Your task to perform on an android device: turn on priority inbox in the gmail app Image 0: 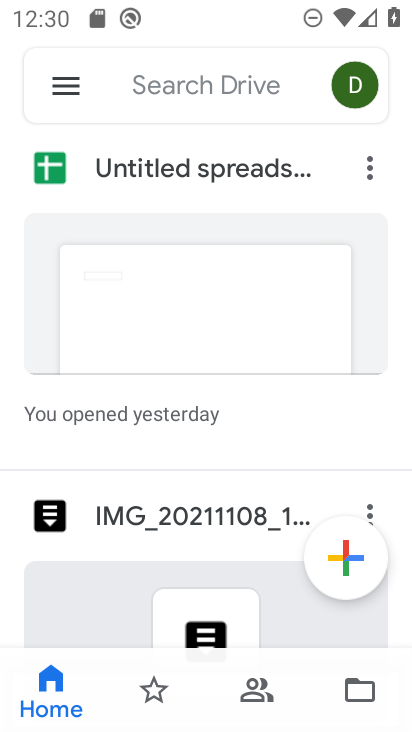
Step 0: press home button
Your task to perform on an android device: turn on priority inbox in the gmail app Image 1: 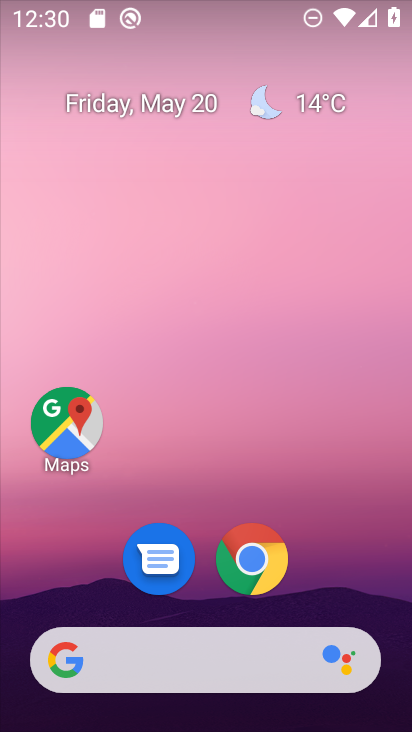
Step 1: drag from (349, 598) to (355, 15)
Your task to perform on an android device: turn on priority inbox in the gmail app Image 2: 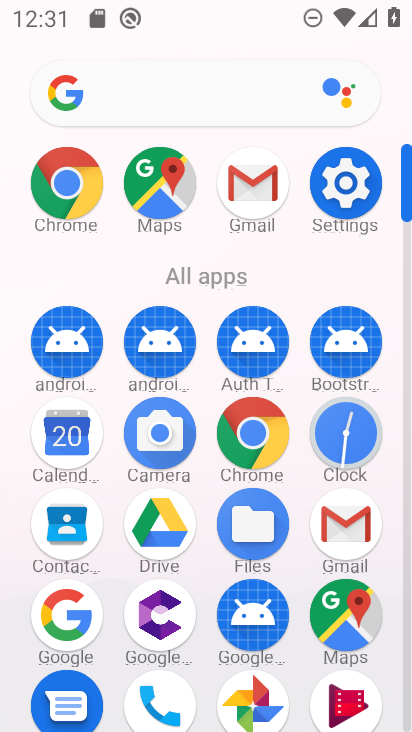
Step 2: click (358, 540)
Your task to perform on an android device: turn on priority inbox in the gmail app Image 3: 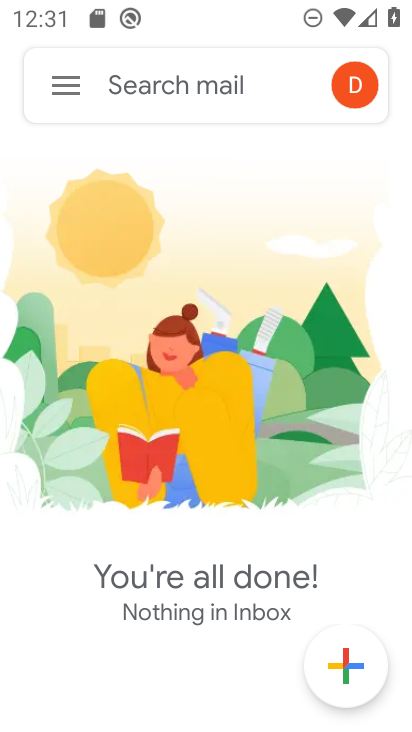
Step 3: click (62, 106)
Your task to perform on an android device: turn on priority inbox in the gmail app Image 4: 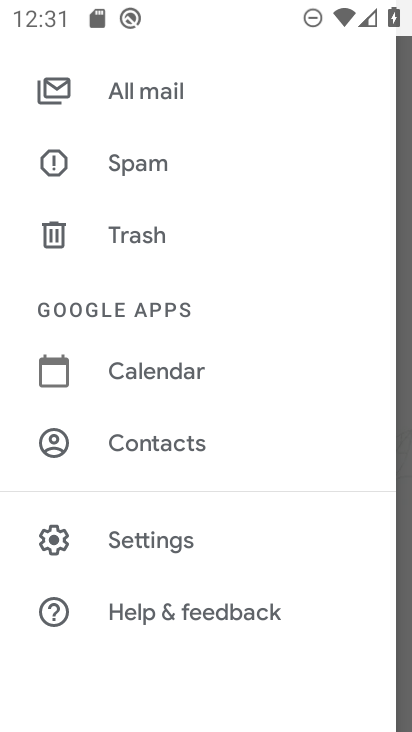
Step 4: click (178, 508)
Your task to perform on an android device: turn on priority inbox in the gmail app Image 5: 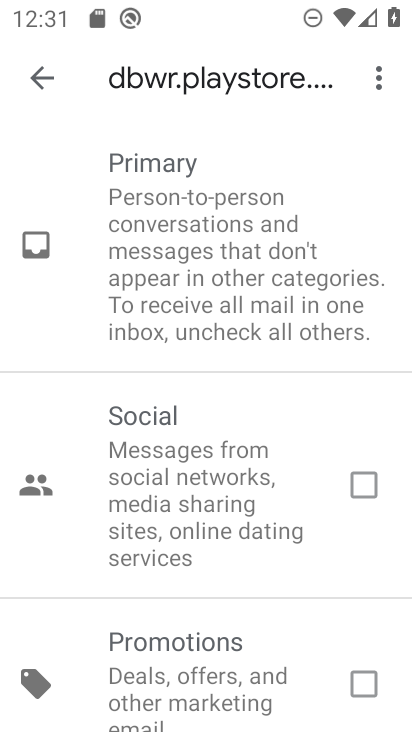
Step 5: click (43, 86)
Your task to perform on an android device: turn on priority inbox in the gmail app Image 6: 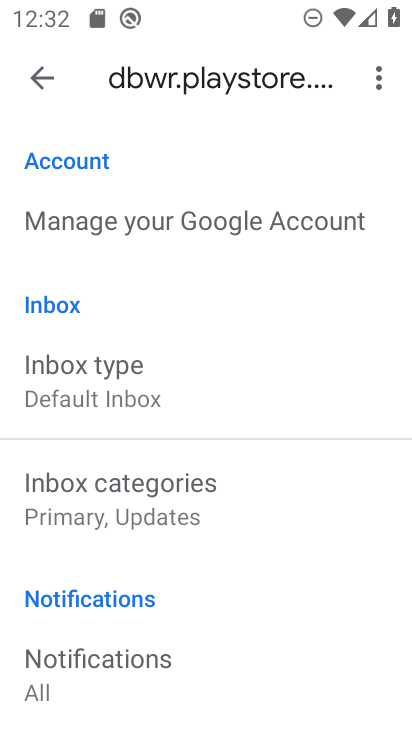
Step 6: click (88, 371)
Your task to perform on an android device: turn on priority inbox in the gmail app Image 7: 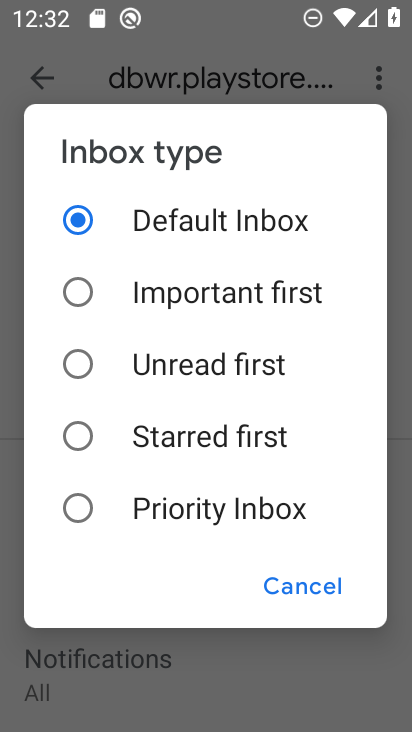
Step 7: click (168, 511)
Your task to perform on an android device: turn on priority inbox in the gmail app Image 8: 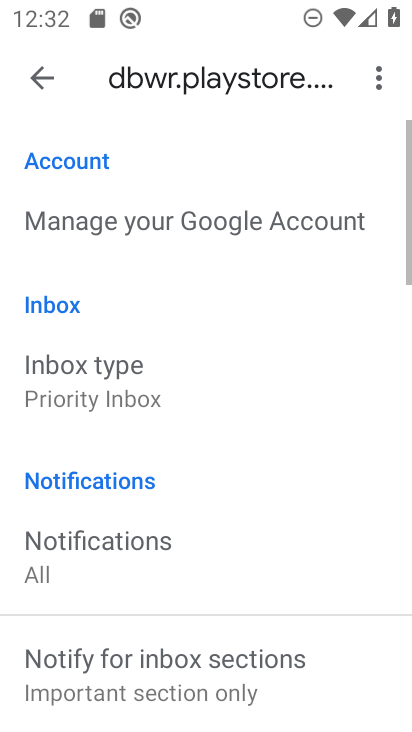
Step 8: task complete